Your task to perform on an android device: stop showing notifications on the lock screen Image 0: 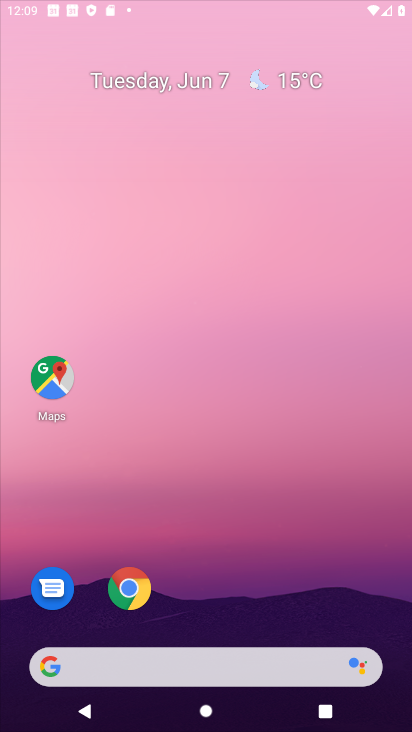
Step 0: drag from (234, 568) to (289, 10)
Your task to perform on an android device: stop showing notifications on the lock screen Image 1: 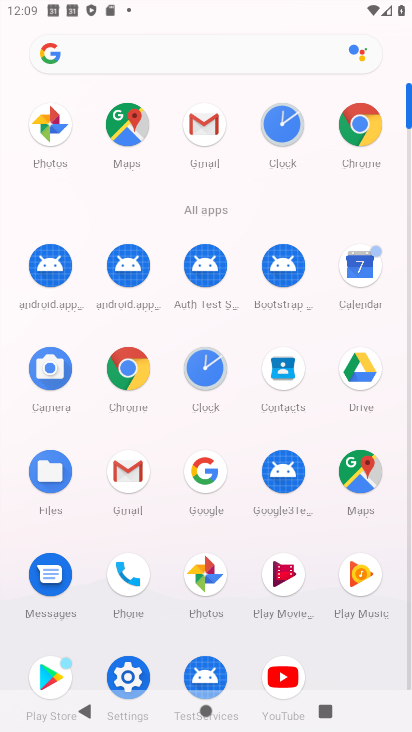
Step 1: click (141, 672)
Your task to perform on an android device: stop showing notifications on the lock screen Image 2: 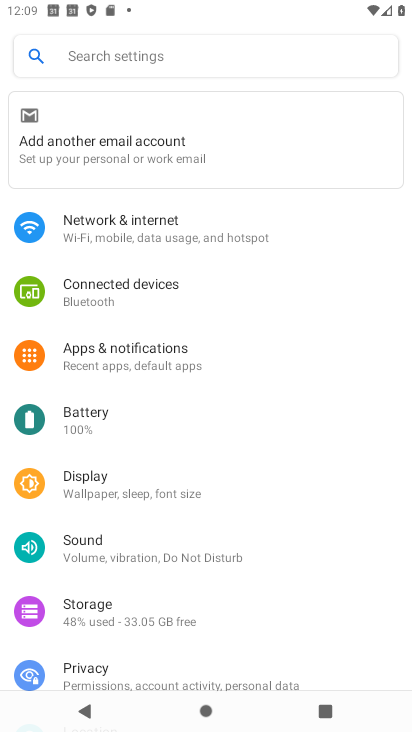
Step 2: click (138, 353)
Your task to perform on an android device: stop showing notifications on the lock screen Image 3: 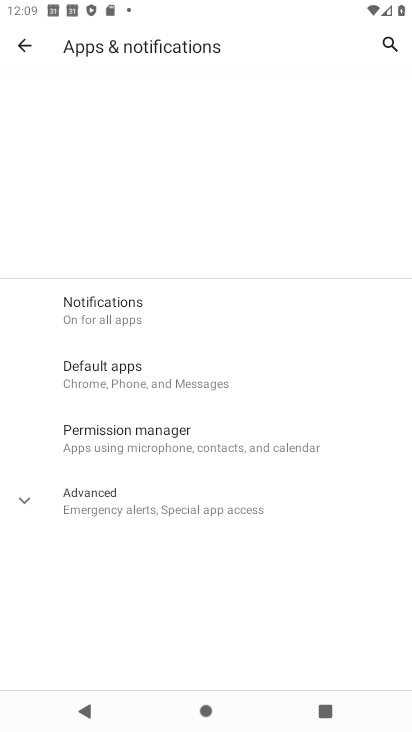
Step 3: click (133, 310)
Your task to perform on an android device: stop showing notifications on the lock screen Image 4: 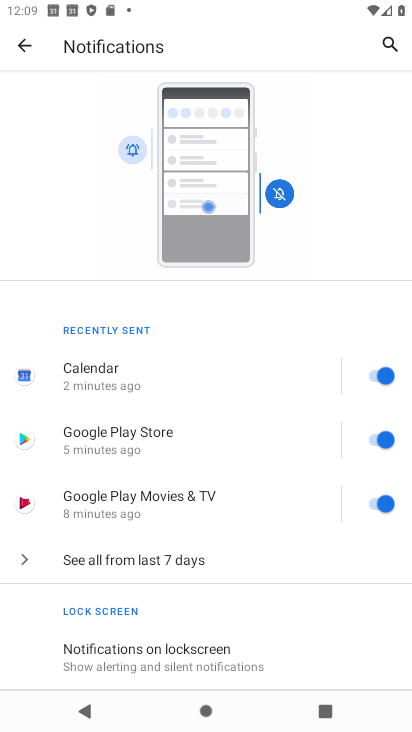
Step 4: click (148, 661)
Your task to perform on an android device: stop showing notifications on the lock screen Image 5: 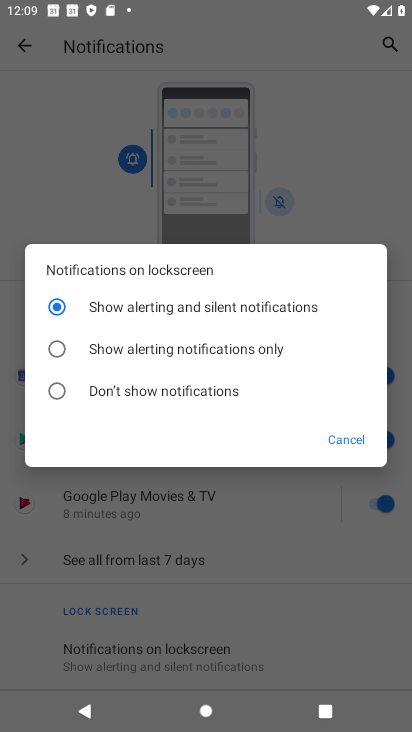
Step 5: click (82, 406)
Your task to perform on an android device: stop showing notifications on the lock screen Image 6: 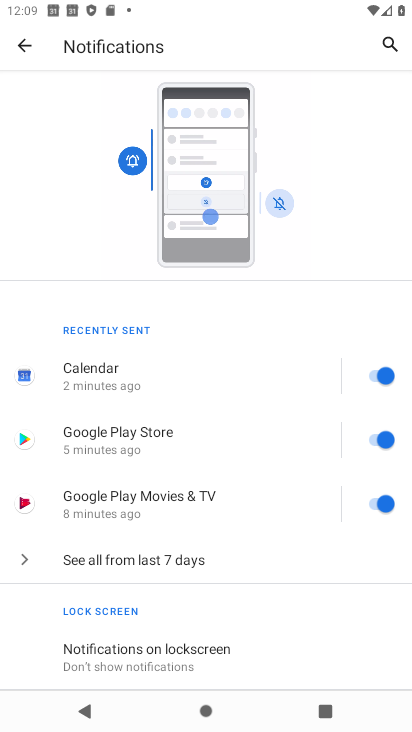
Step 6: task complete